Your task to perform on an android device: toggle show notifications on the lock screen Image 0: 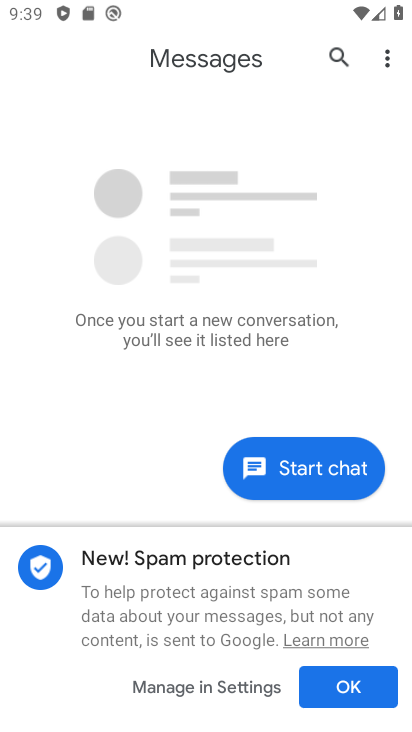
Step 0: press home button
Your task to perform on an android device: toggle show notifications on the lock screen Image 1: 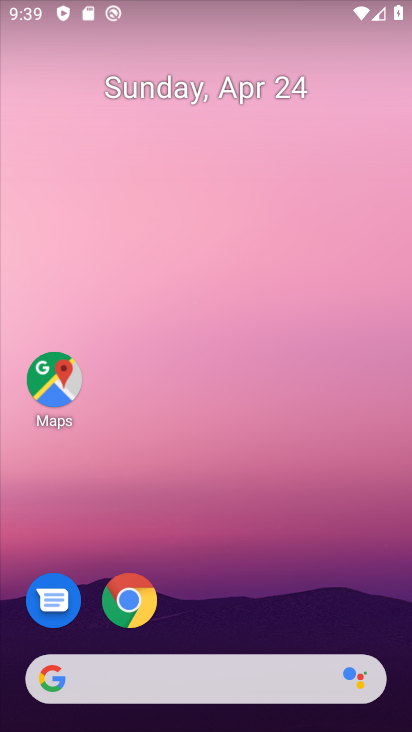
Step 1: drag from (218, 601) to (233, 271)
Your task to perform on an android device: toggle show notifications on the lock screen Image 2: 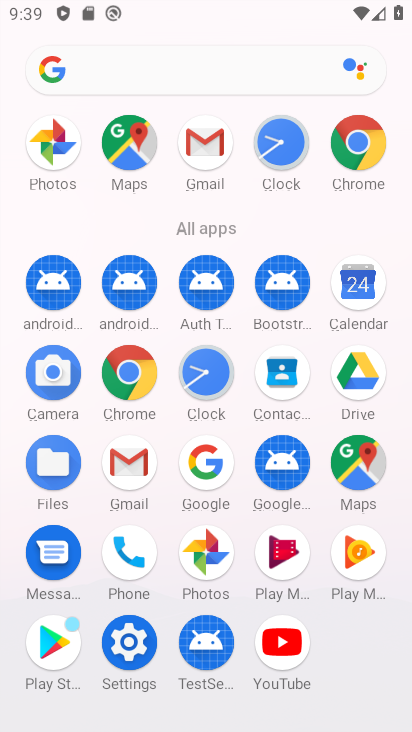
Step 2: click (122, 631)
Your task to perform on an android device: toggle show notifications on the lock screen Image 3: 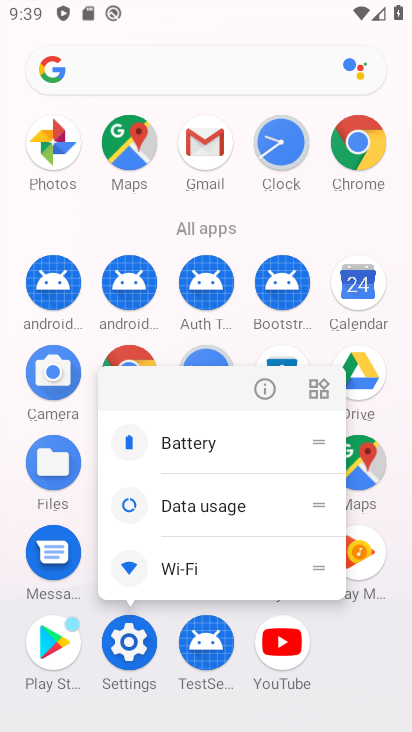
Step 3: click (122, 631)
Your task to perform on an android device: toggle show notifications on the lock screen Image 4: 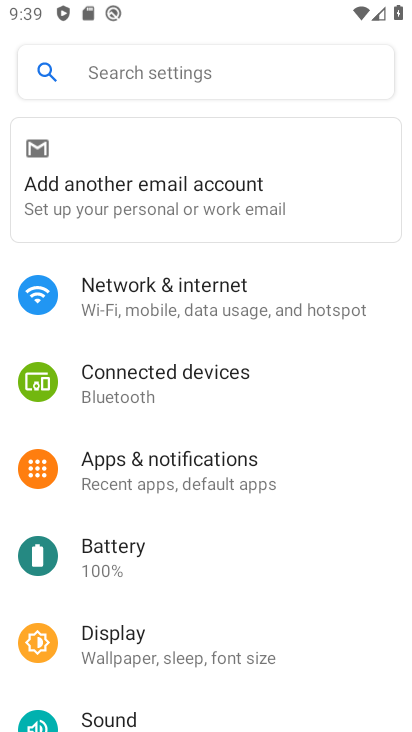
Step 4: click (199, 476)
Your task to perform on an android device: toggle show notifications on the lock screen Image 5: 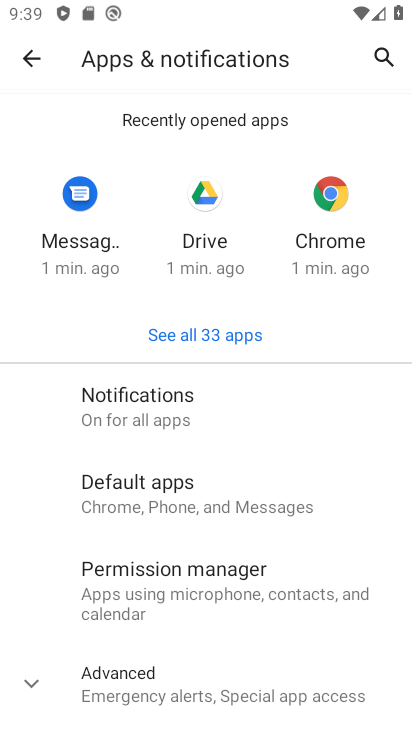
Step 5: click (186, 416)
Your task to perform on an android device: toggle show notifications on the lock screen Image 6: 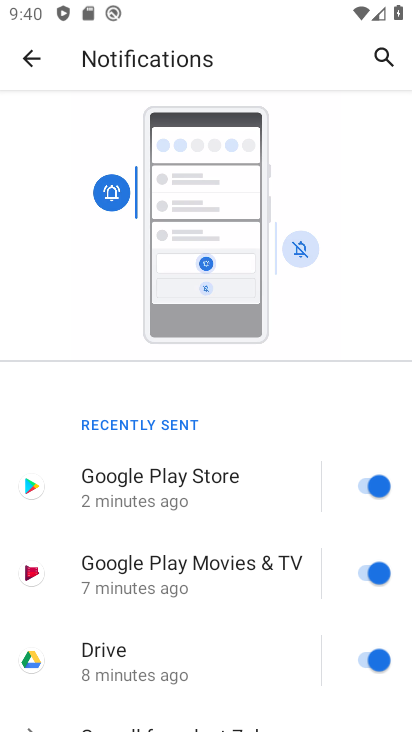
Step 6: drag from (286, 681) to (247, 355)
Your task to perform on an android device: toggle show notifications on the lock screen Image 7: 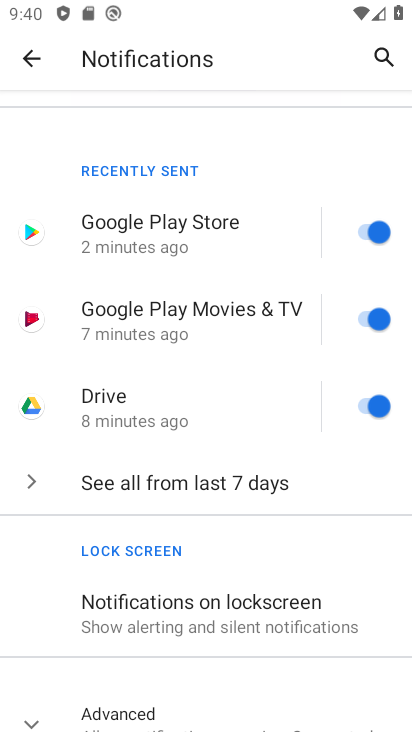
Step 7: click (279, 580)
Your task to perform on an android device: toggle show notifications on the lock screen Image 8: 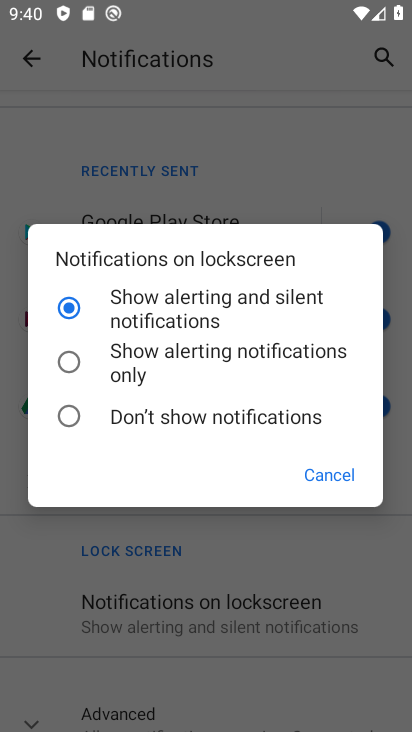
Step 8: click (219, 357)
Your task to perform on an android device: toggle show notifications on the lock screen Image 9: 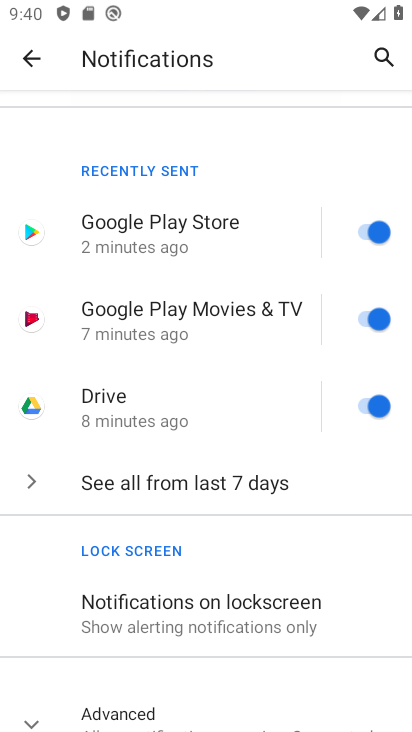
Step 9: task complete